Your task to perform on an android device: turn smart compose on in the gmail app Image 0: 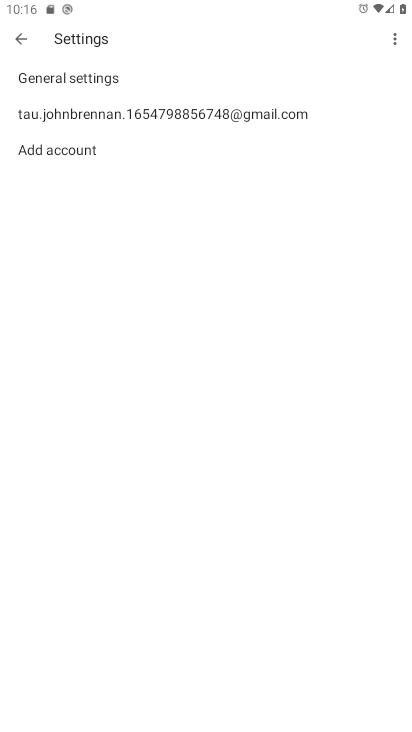
Step 0: click (125, 111)
Your task to perform on an android device: turn smart compose on in the gmail app Image 1: 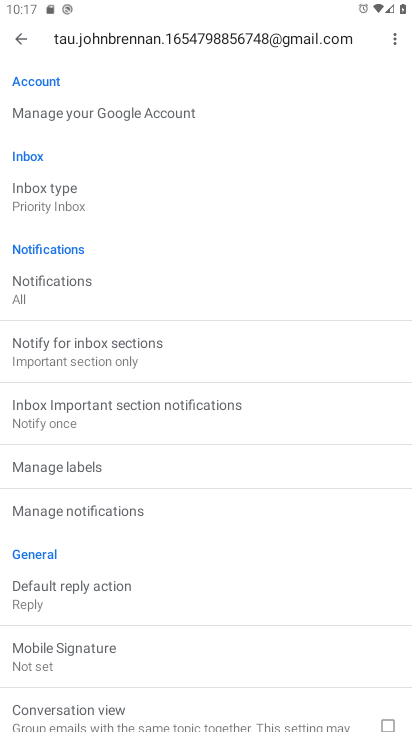
Step 1: task complete